Your task to perform on an android device: clear history in the chrome app Image 0: 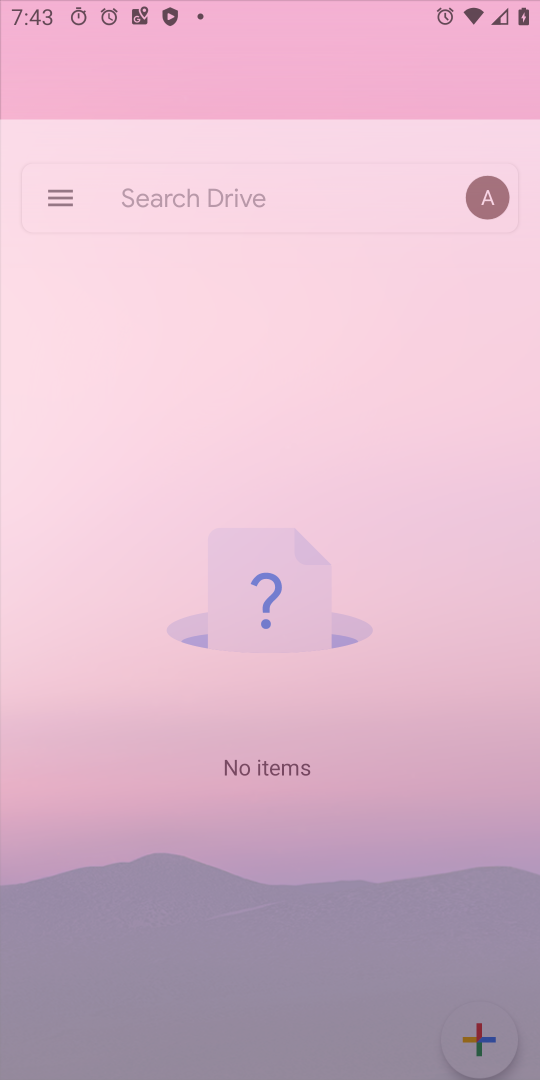
Step 0: press home button
Your task to perform on an android device: clear history in the chrome app Image 1: 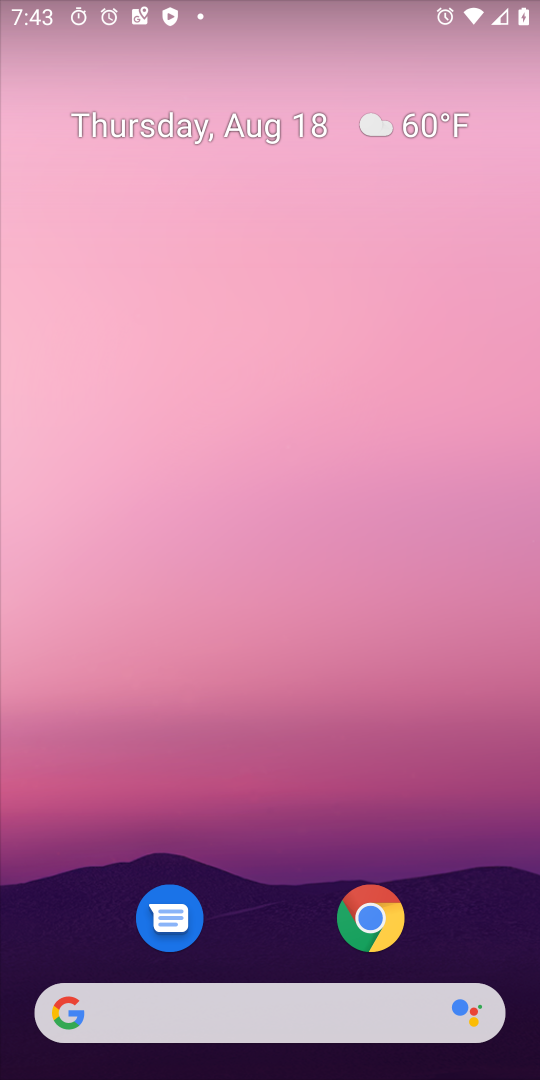
Step 1: click (367, 918)
Your task to perform on an android device: clear history in the chrome app Image 2: 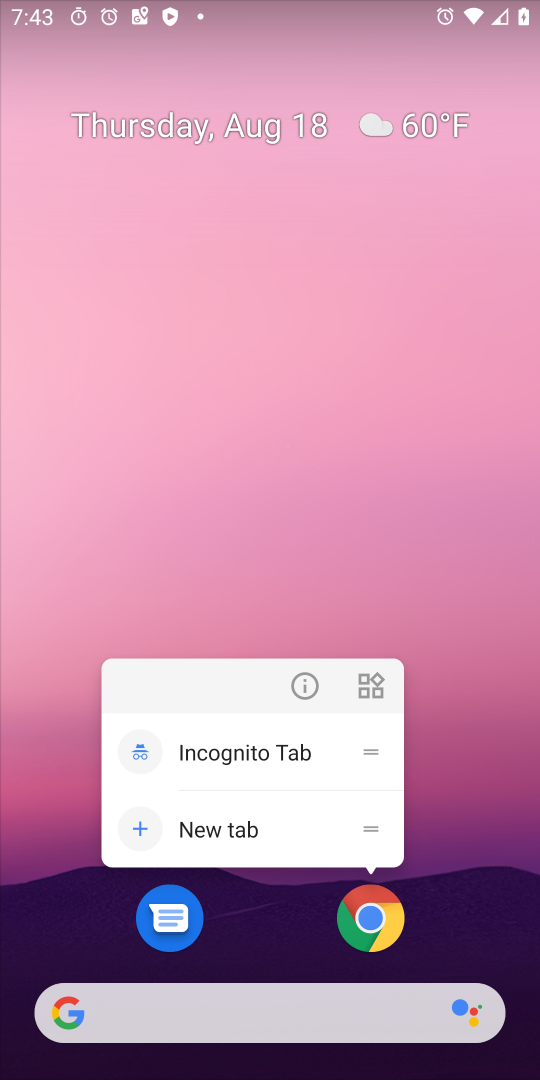
Step 2: click (367, 918)
Your task to perform on an android device: clear history in the chrome app Image 3: 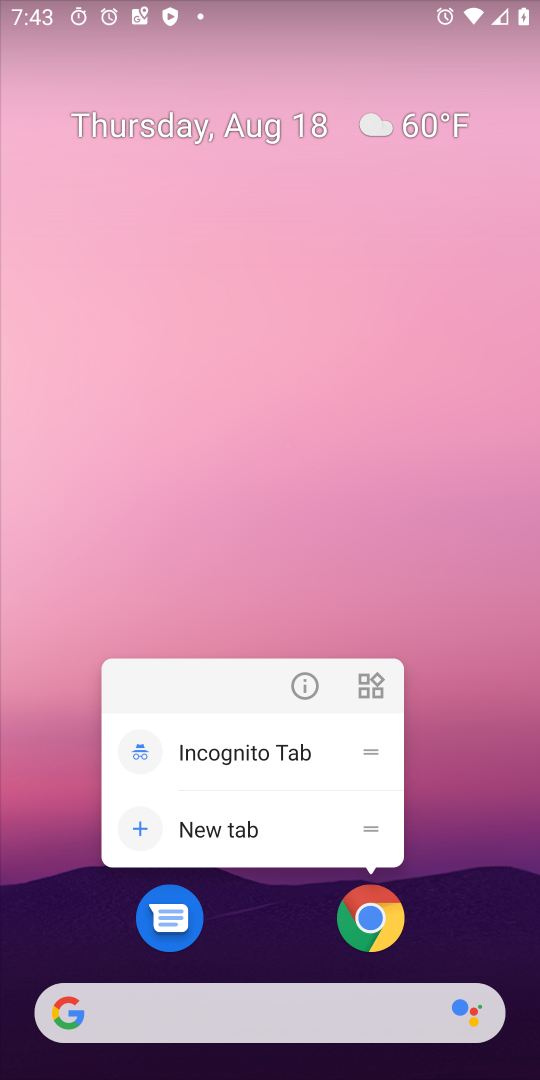
Step 3: click (367, 918)
Your task to perform on an android device: clear history in the chrome app Image 4: 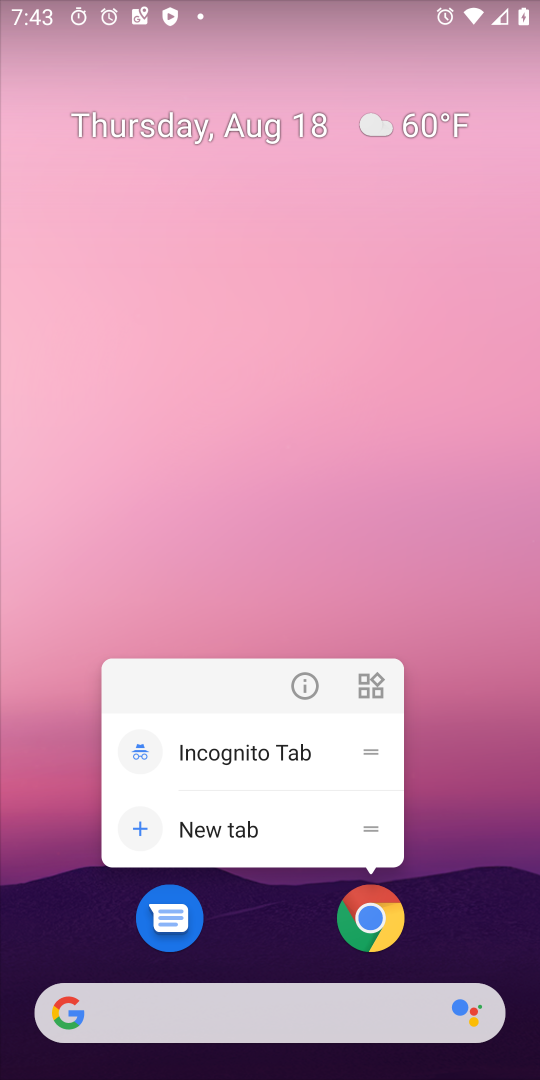
Step 4: click (367, 918)
Your task to perform on an android device: clear history in the chrome app Image 5: 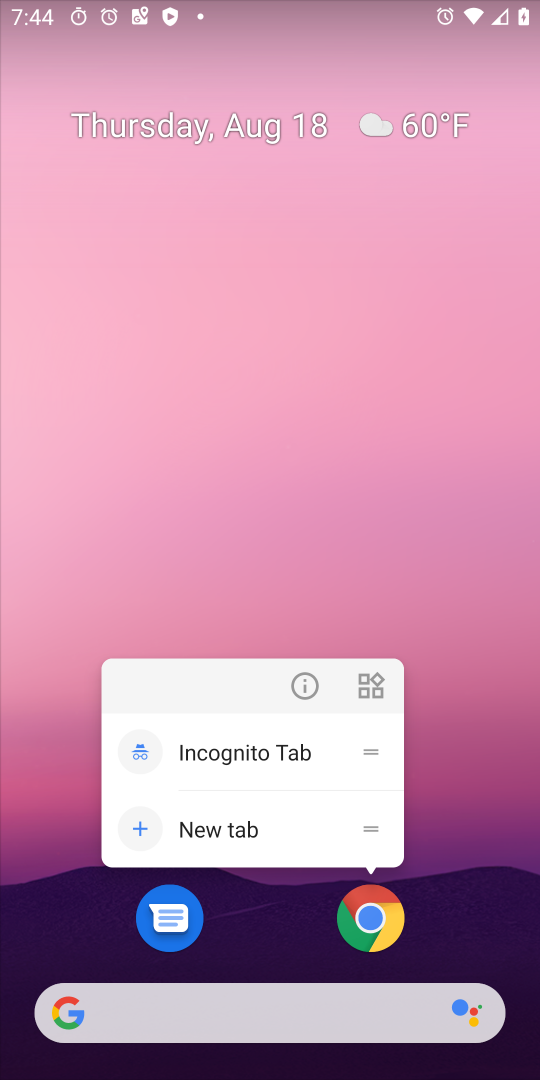
Step 5: click (356, 929)
Your task to perform on an android device: clear history in the chrome app Image 6: 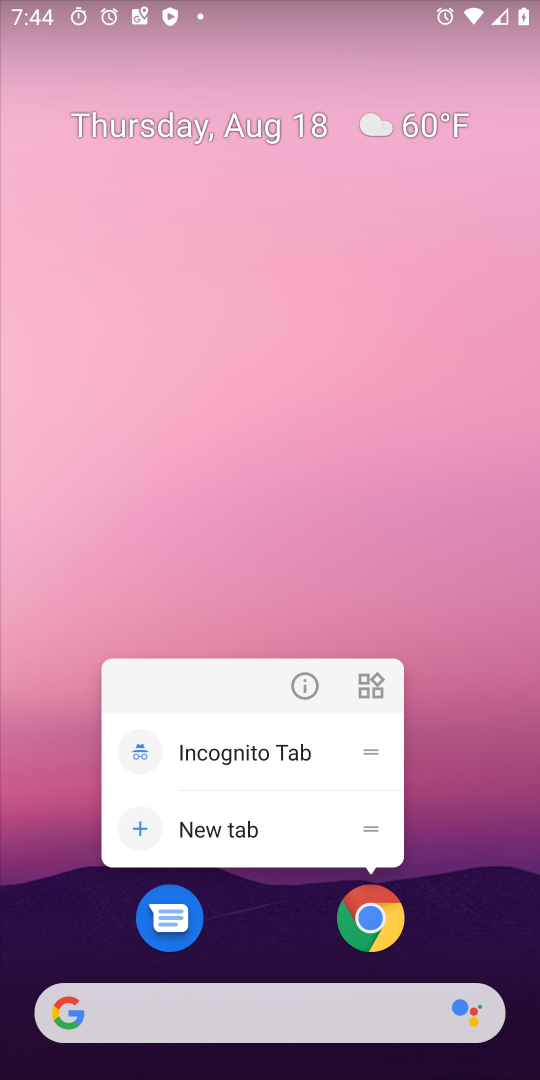
Step 6: click (355, 926)
Your task to perform on an android device: clear history in the chrome app Image 7: 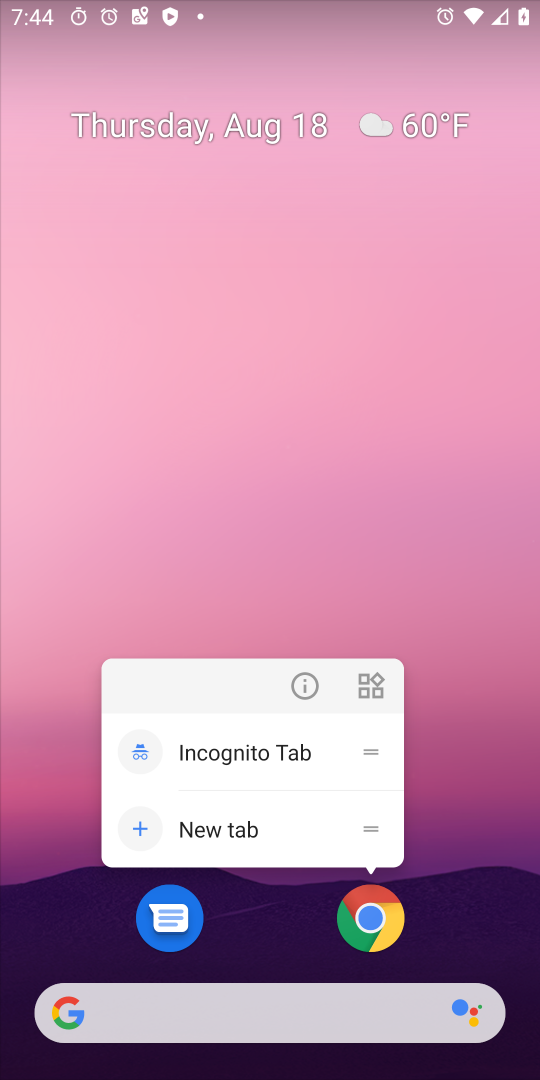
Step 7: click (355, 926)
Your task to perform on an android device: clear history in the chrome app Image 8: 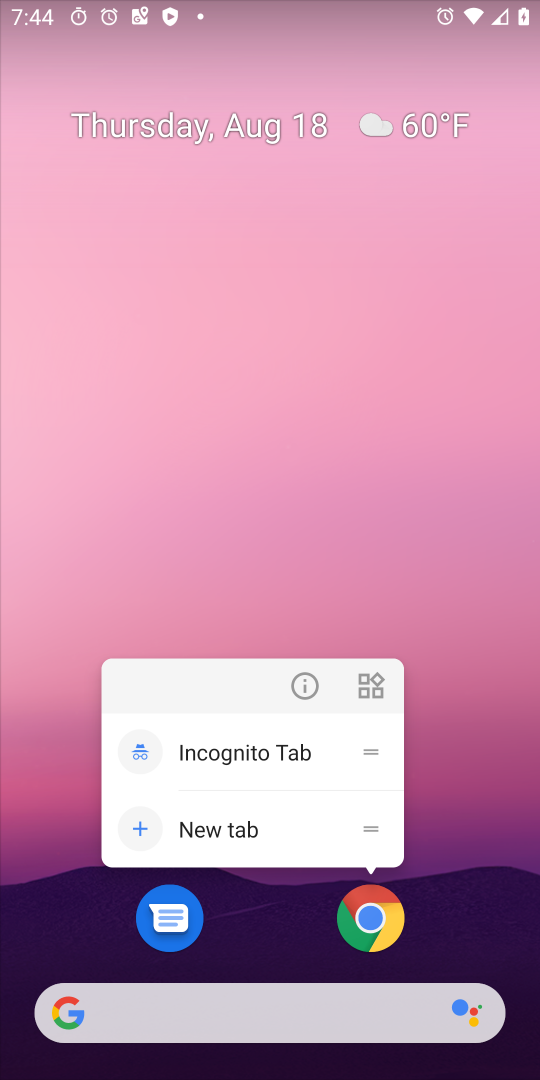
Step 8: click (355, 926)
Your task to perform on an android device: clear history in the chrome app Image 9: 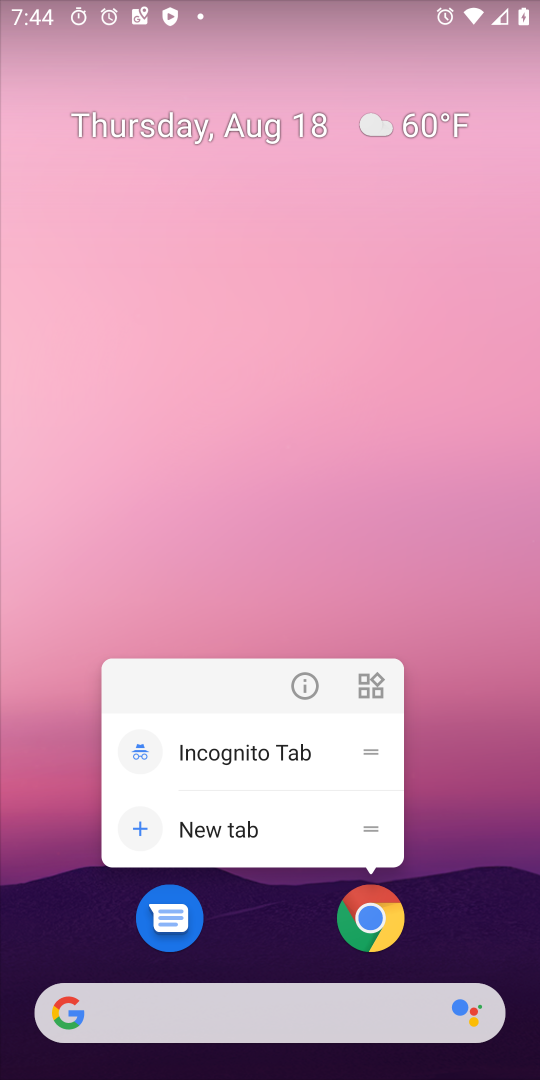
Step 9: click (347, 905)
Your task to perform on an android device: clear history in the chrome app Image 10: 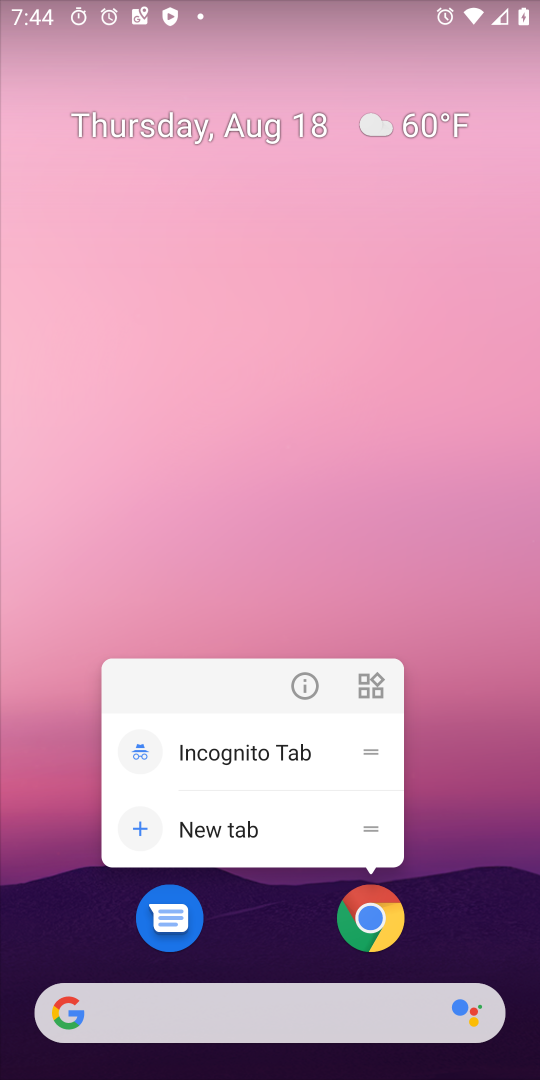
Step 10: click (347, 905)
Your task to perform on an android device: clear history in the chrome app Image 11: 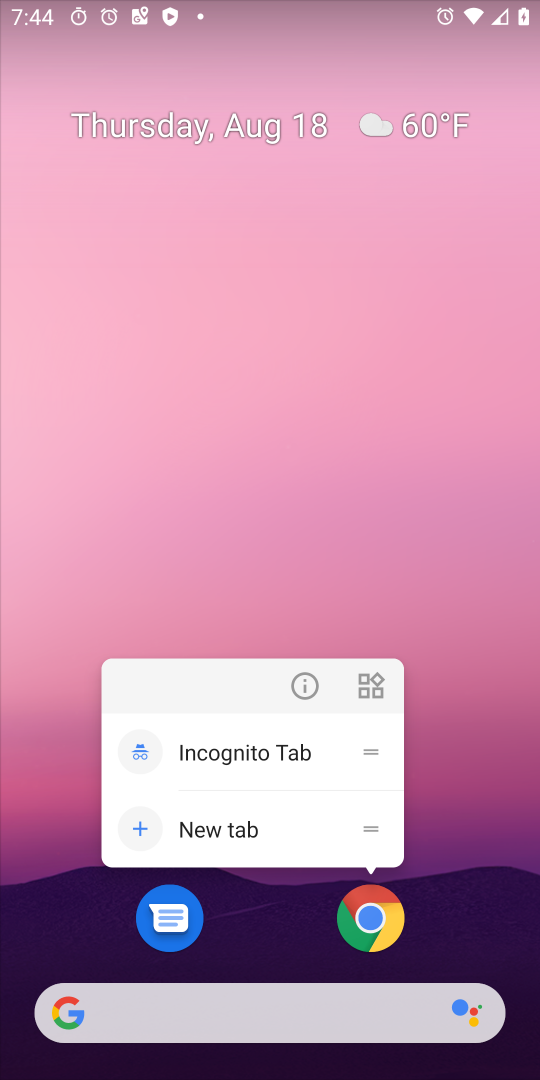
Step 11: click (347, 905)
Your task to perform on an android device: clear history in the chrome app Image 12: 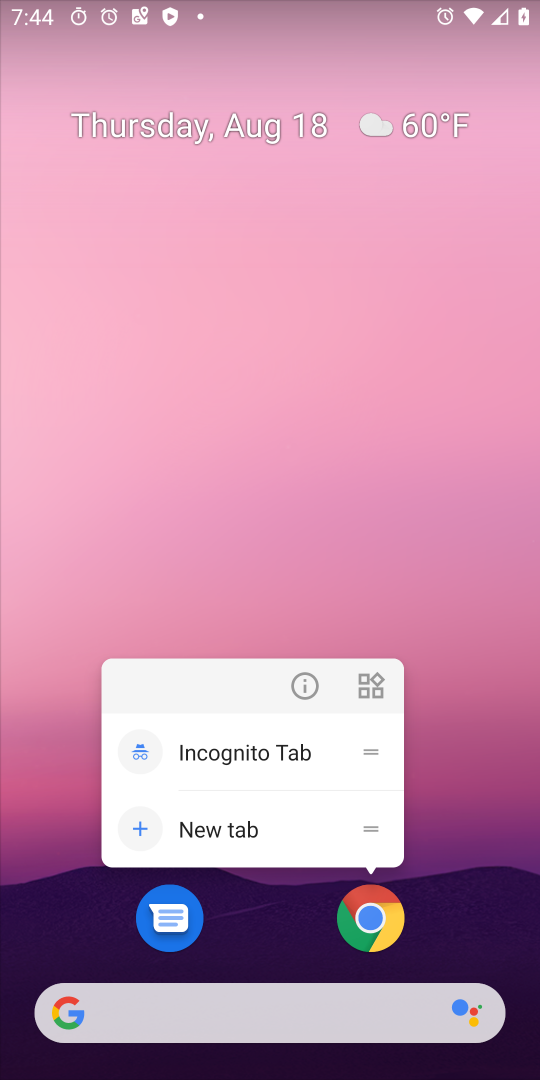
Step 12: click (347, 905)
Your task to perform on an android device: clear history in the chrome app Image 13: 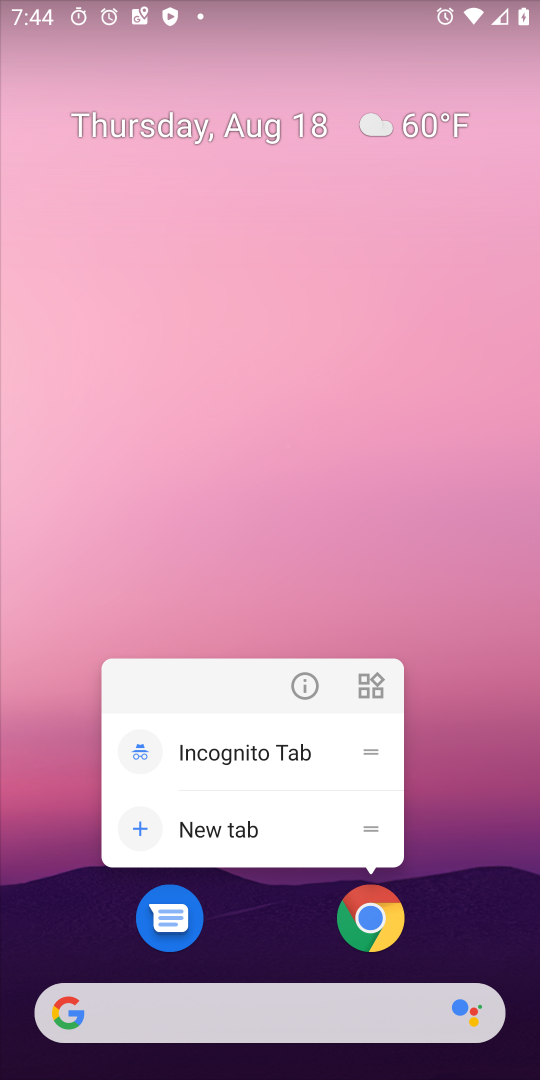
Step 13: click (385, 925)
Your task to perform on an android device: clear history in the chrome app Image 14: 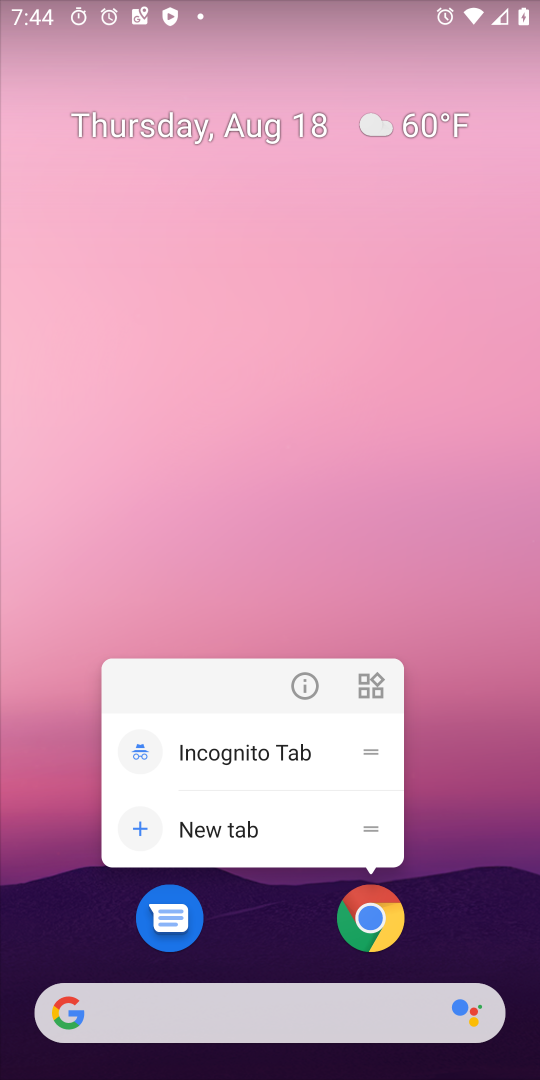
Step 14: click (385, 925)
Your task to perform on an android device: clear history in the chrome app Image 15: 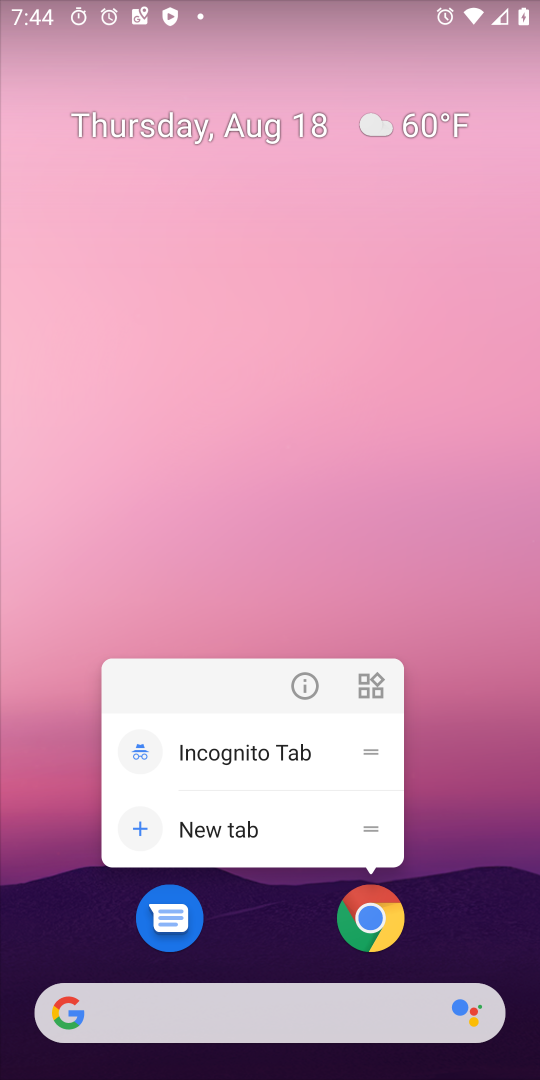
Step 15: click (385, 925)
Your task to perform on an android device: clear history in the chrome app Image 16: 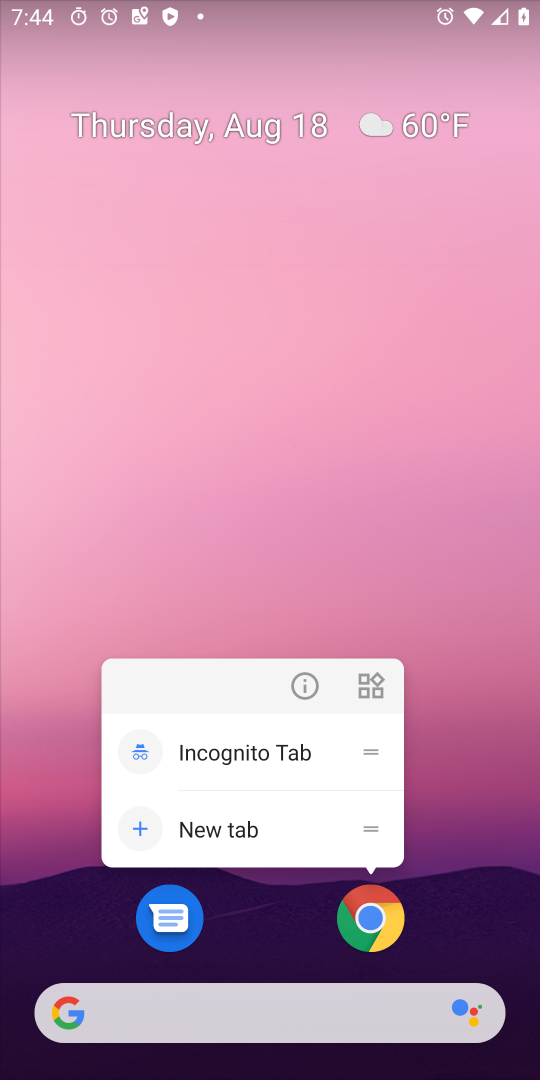
Step 16: click (385, 925)
Your task to perform on an android device: clear history in the chrome app Image 17: 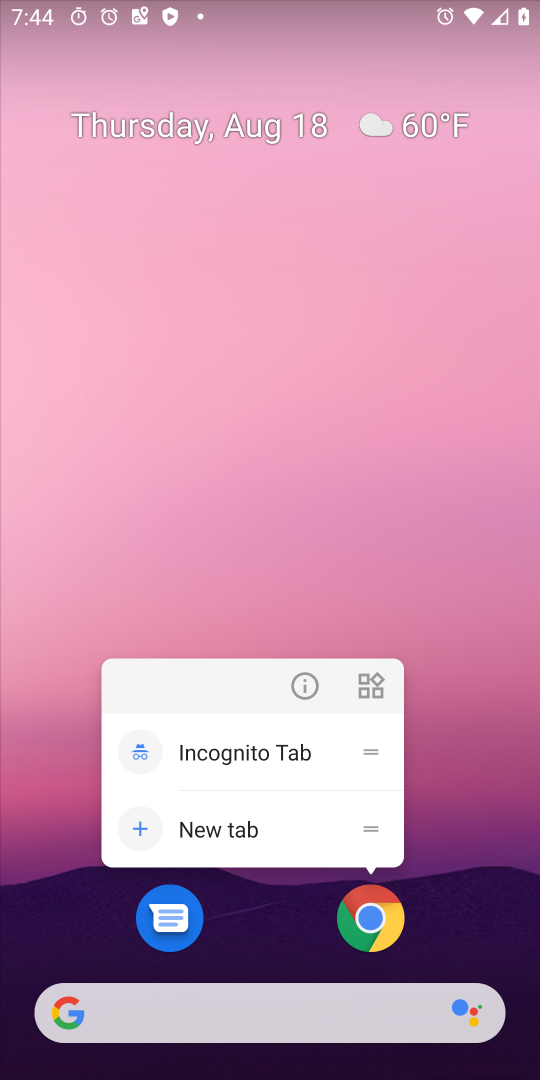
Step 17: click (385, 925)
Your task to perform on an android device: clear history in the chrome app Image 18: 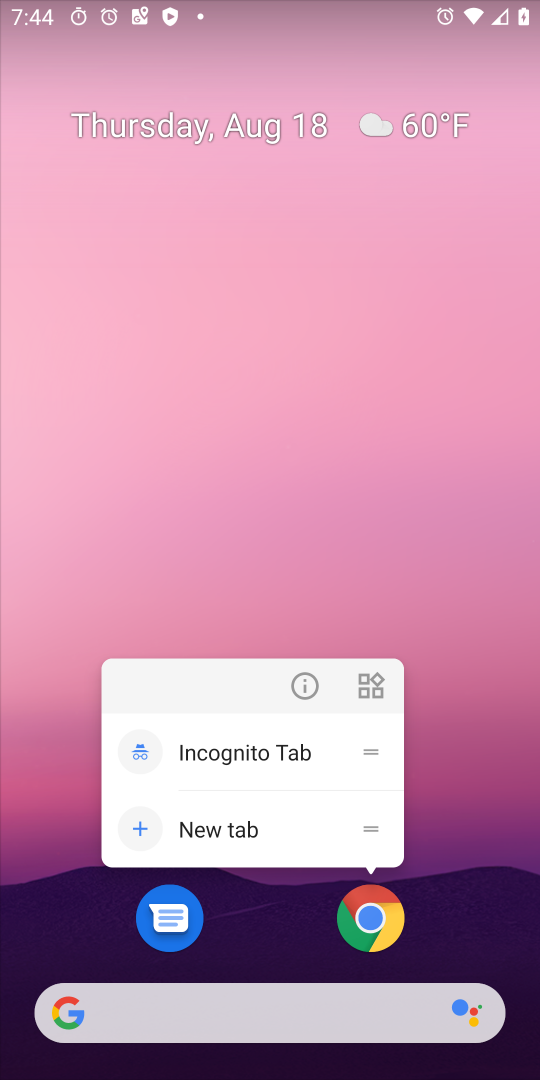
Step 18: click (385, 925)
Your task to perform on an android device: clear history in the chrome app Image 19: 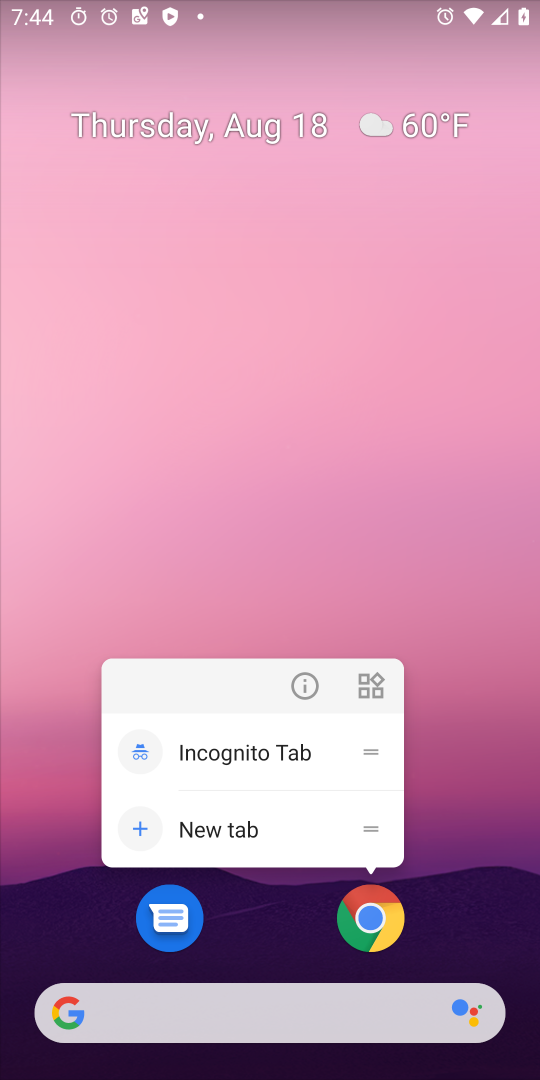
Step 19: click (385, 925)
Your task to perform on an android device: clear history in the chrome app Image 20: 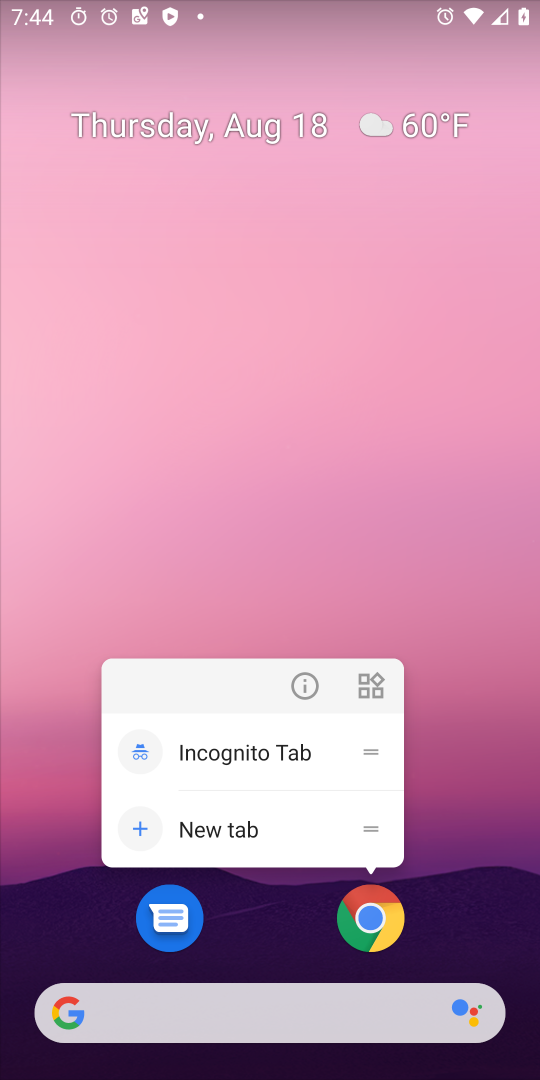
Step 20: click (385, 925)
Your task to perform on an android device: clear history in the chrome app Image 21: 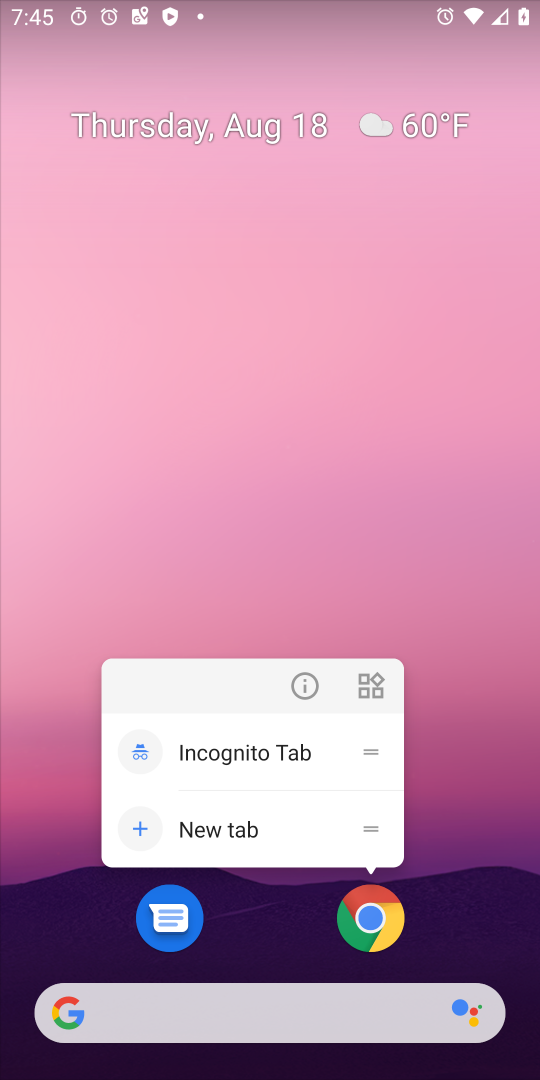
Step 21: click (389, 909)
Your task to perform on an android device: clear history in the chrome app Image 22: 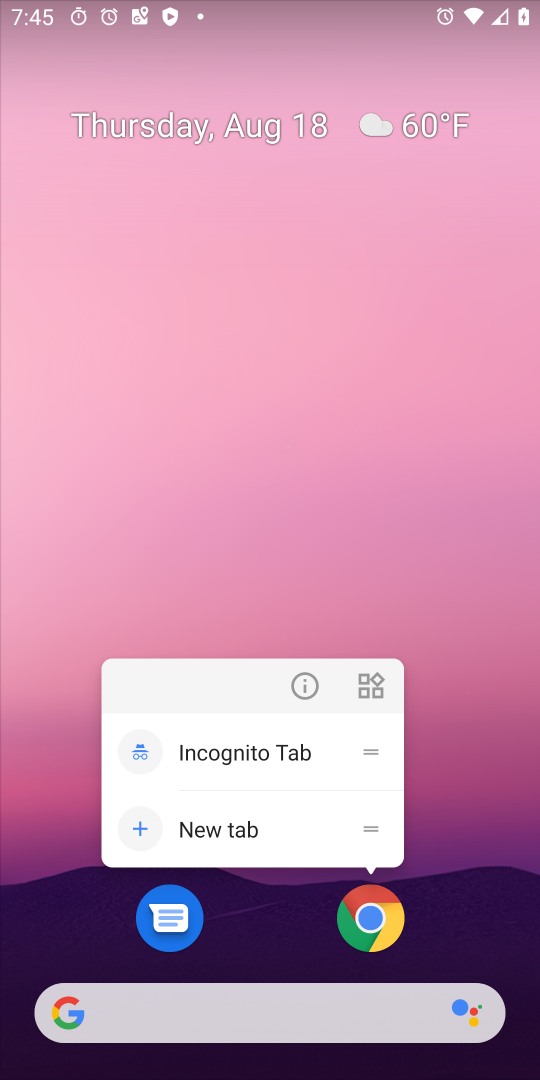
Step 22: click (365, 936)
Your task to perform on an android device: clear history in the chrome app Image 23: 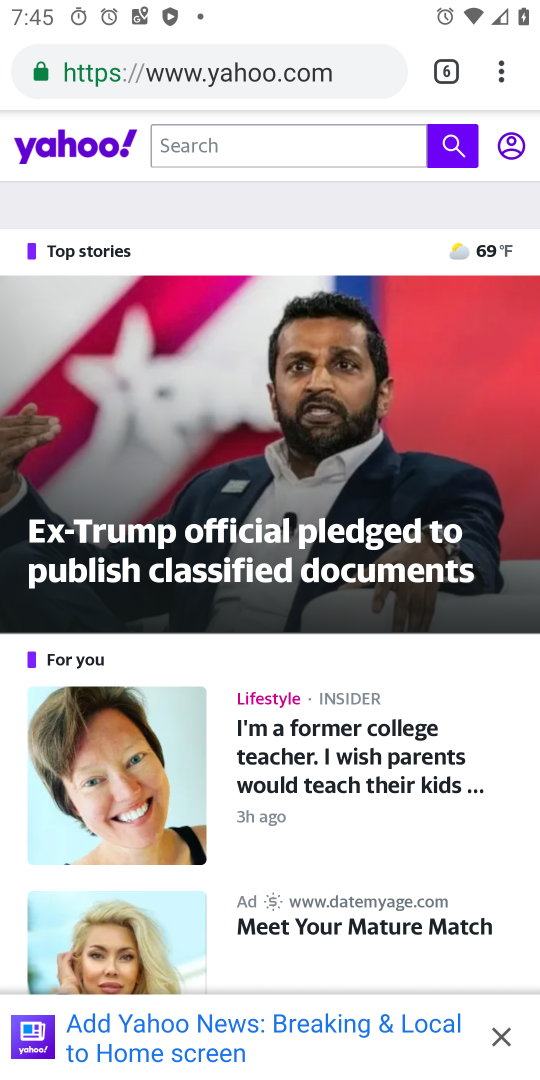
Step 23: drag from (504, 67) to (287, 423)
Your task to perform on an android device: clear history in the chrome app Image 24: 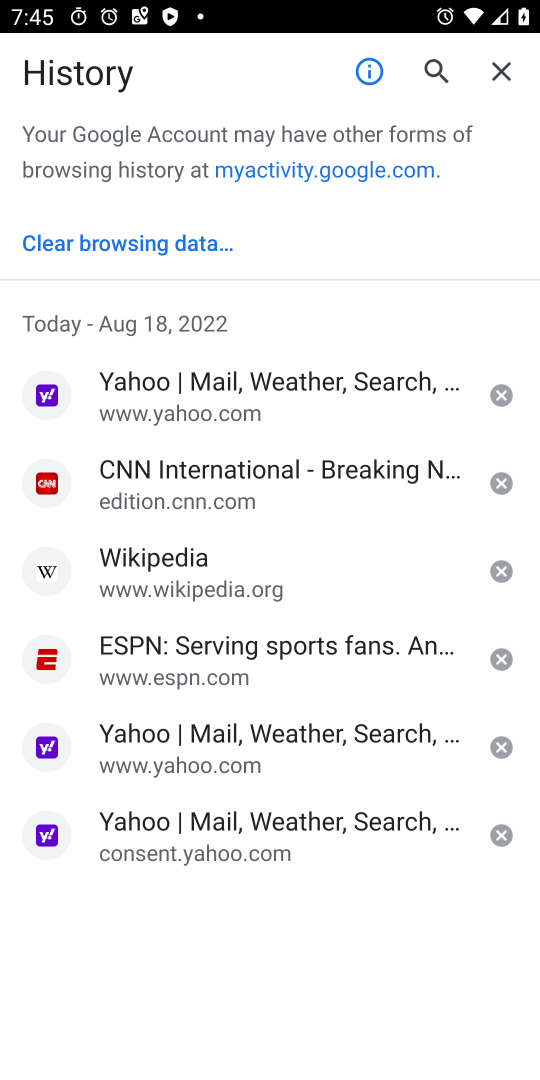
Step 24: click (114, 245)
Your task to perform on an android device: clear history in the chrome app Image 25: 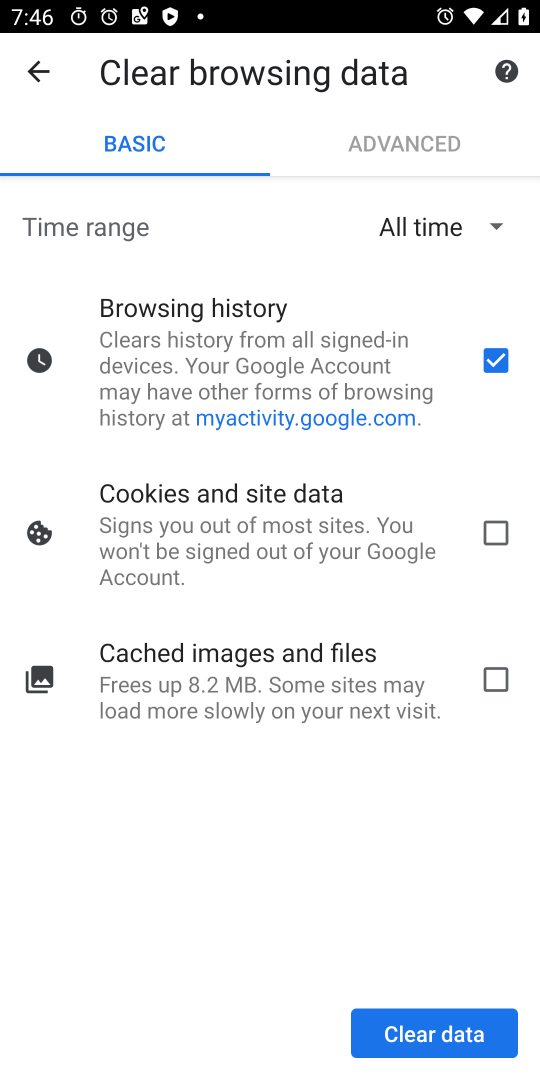
Step 25: click (442, 1020)
Your task to perform on an android device: clear history in the chrome app Image 26: 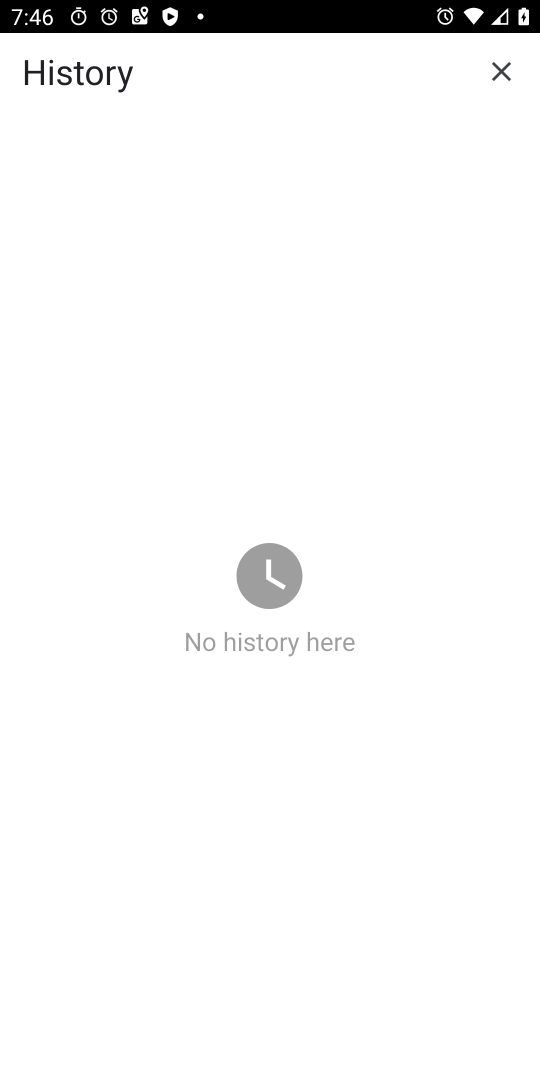
Step 26: task complete